Your task to perform on an android device: toggle pop-ups in chrome Image 0: 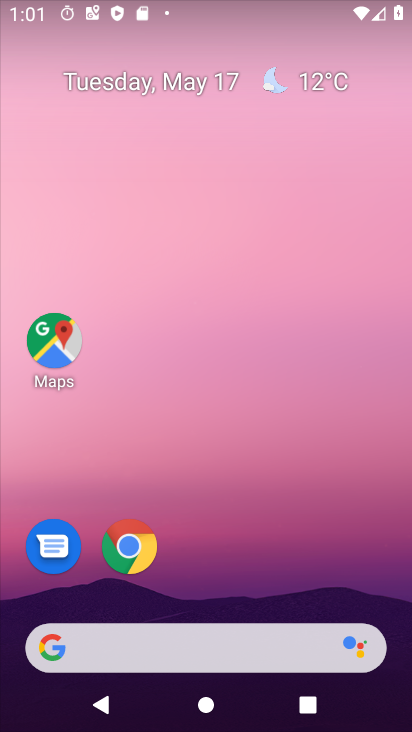
Step 0: press home button
Your task to perform on an android device: toggle pop-ups in chrome Image 1: 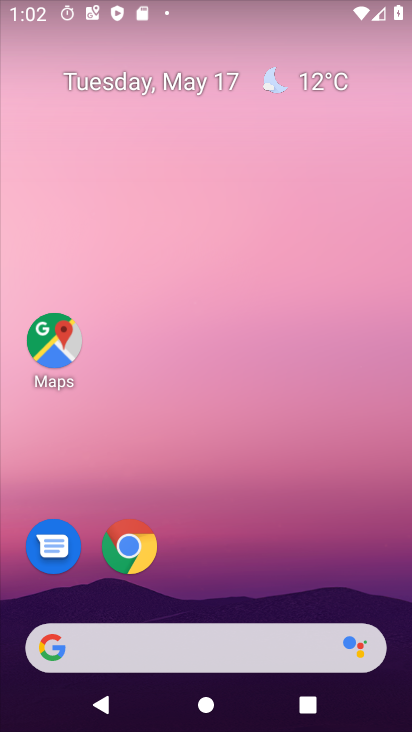
Step 1: drag from (194, 615) to (322, 191)
Your task to perform on an android device: toggle pop-ups in chrome Image 2: 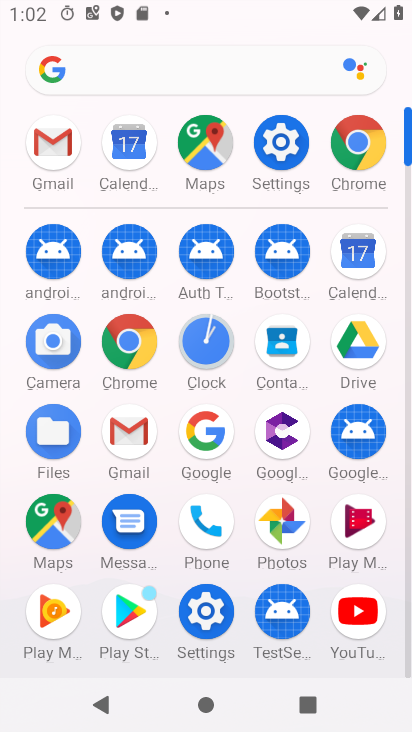
Step 2: click (362, 155)
Your task to perform on an android device: toggle pop-ups in chrome Image 3: 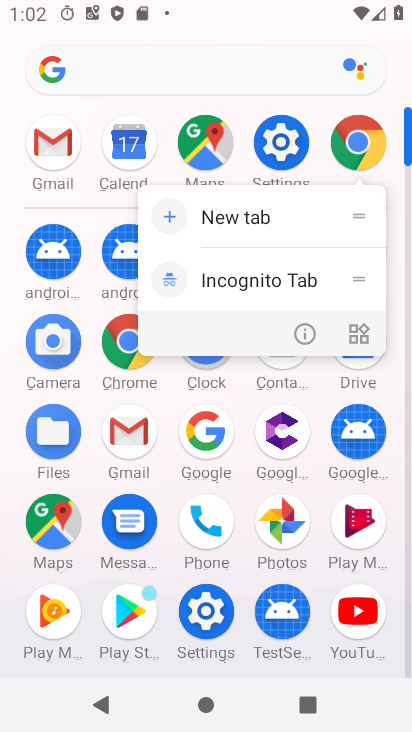
Step 3: click (361, 147)
Your task to perform on an android device: toggle pop-ups in chrome Image 4: 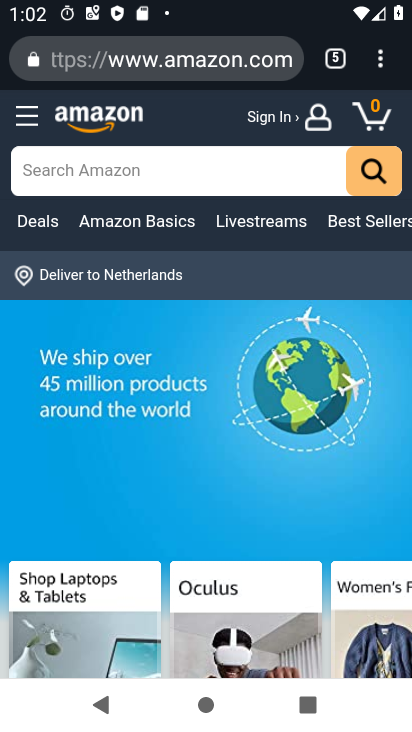
Step 4: drag from (386, 62) to (242, 585)
Your task to perform on an android device: toggle pop-ups in chrome Image 5: 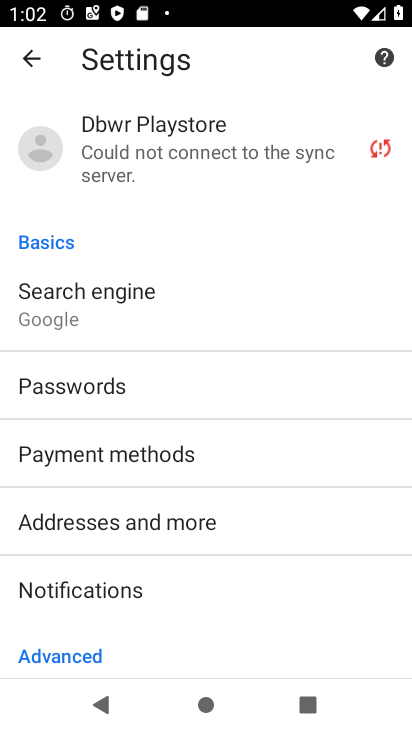
Step 5: drag from (176, 607) to (302, 227)
Your task to perform on an android device: toggle pop-ups in chrome Image 6: 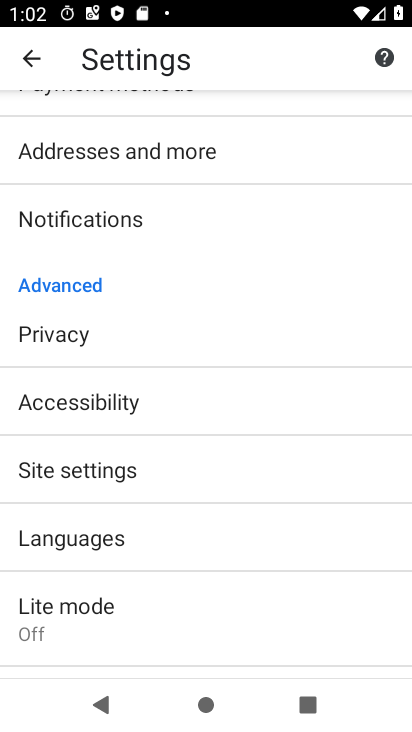
Step 6: click (125, 473)
Your task to perform on an android device: toggle pop-ups in chrome Image 7: 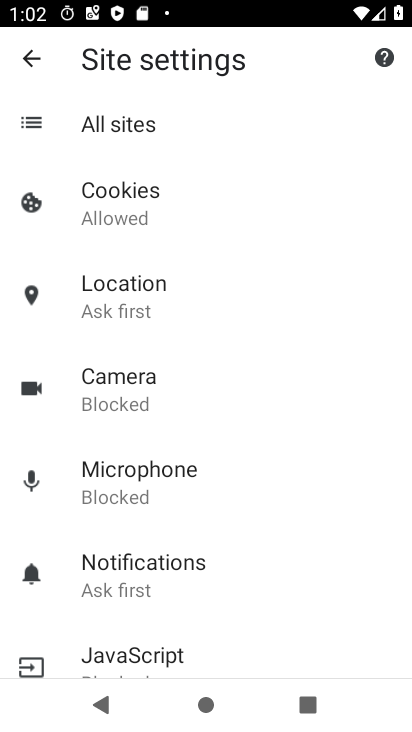
Step 7: drag from (213, 613) to (285, 230)
Your task to perform on an android device: toggle pop-ups in chrome Image 8: 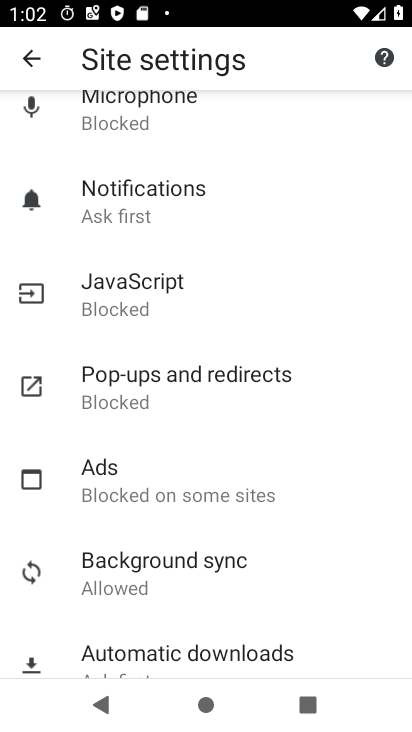
Step 8: click (177, 391)
Your task to perform on an android device: toggle pop-ups in chrome Image 9: 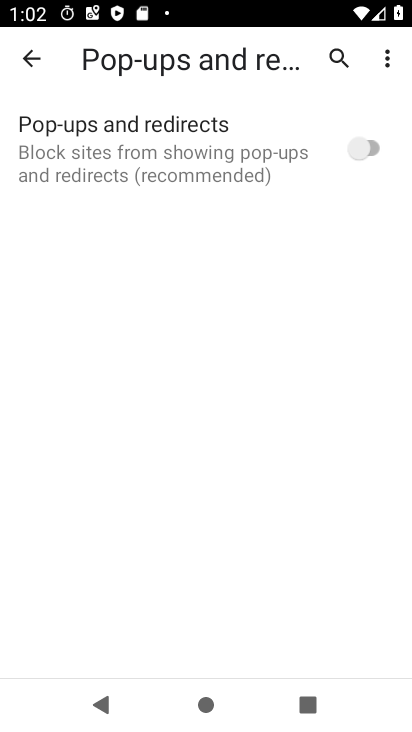
Step 9: click (370, 145)
Your task to perform on an android device: toggle pop-ups in chrome Image 10: 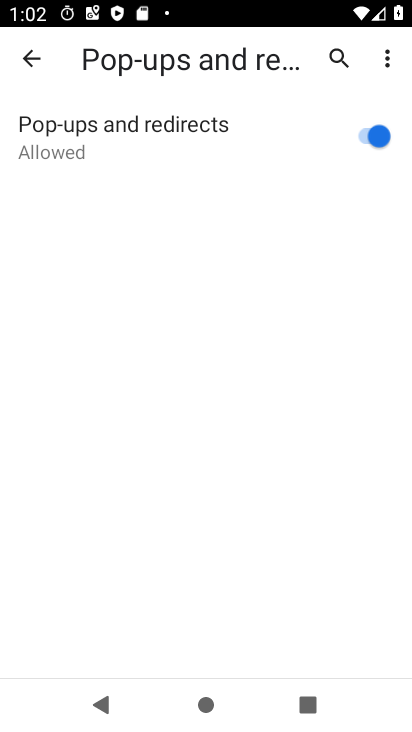
Step 10: task complete